Your task to perform on an android device: turn on location history Image 0: 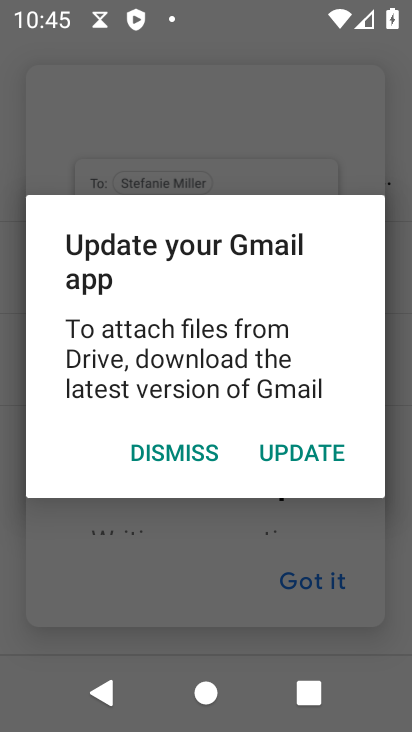
Step 0: press home button
Your task to perform on an android device: turn on location history Image 1: 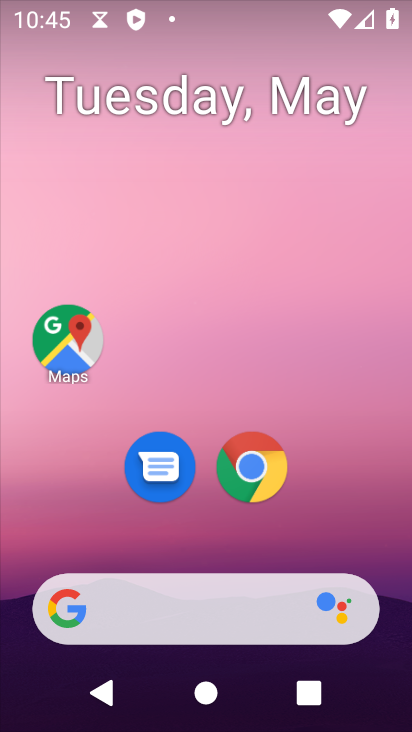
Step 1: drag from (393, 581) to (316, 156)
Your task to perform on an android device: turn on location history Image 2: 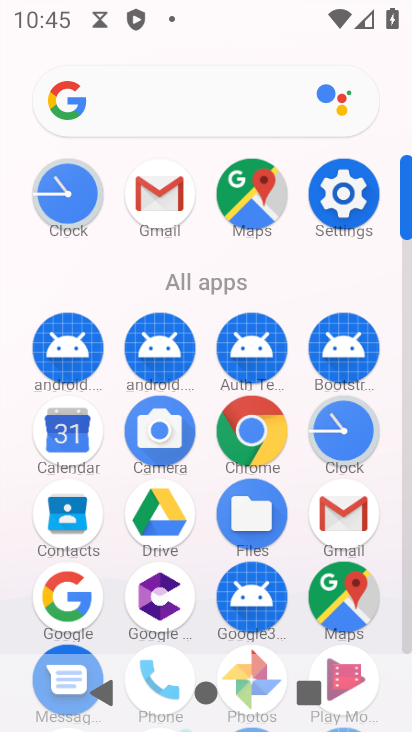
Step 2: click (270, 207)
Your task to perform on an android device: turn on location history Image 3: 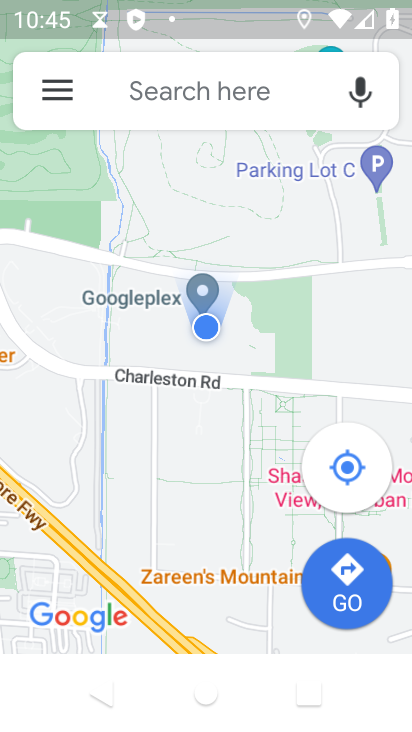
Step 3: click (62, 88)
Your task to perform on an android device: turn on location history Image 4: 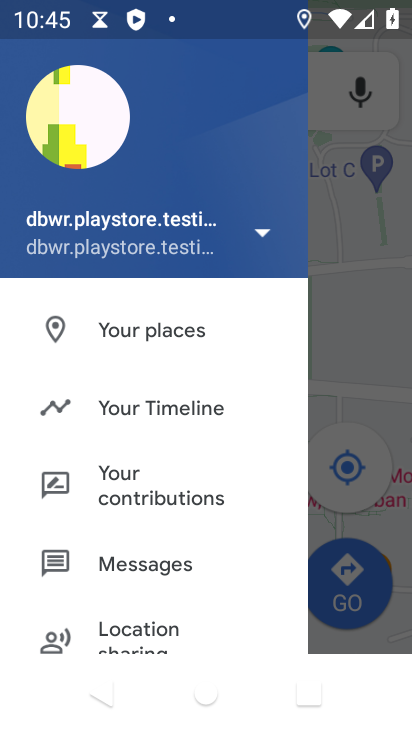
Step 4: click (194, 411)
Your task to perform on an android device: turn on location history Image 5: 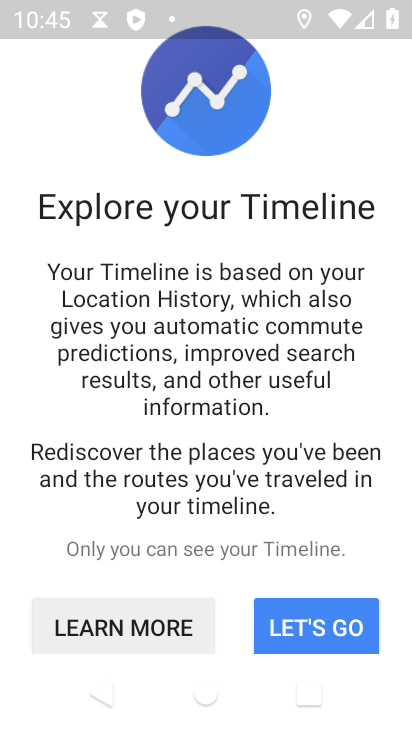
Step 5: click (315, 614)
Your task to perform on an android device: turn on location history Image 6: 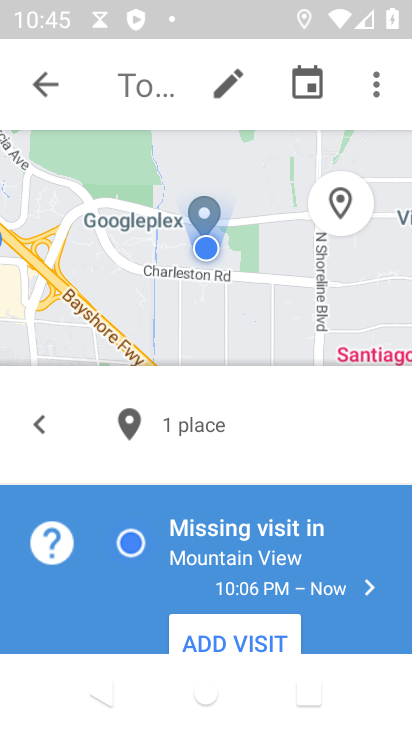
Step 6: click (382, 90)
Your task to perform on an android device: turn on location history Image 7: 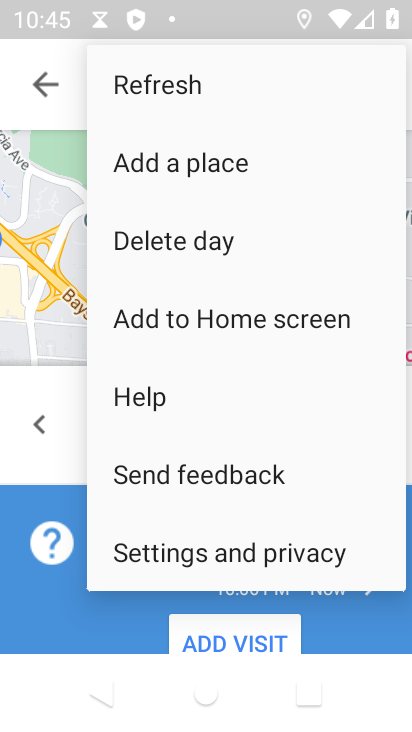
Step 7: click (251, 541)
Your task to perform on an android device: turn on location history Image 8: 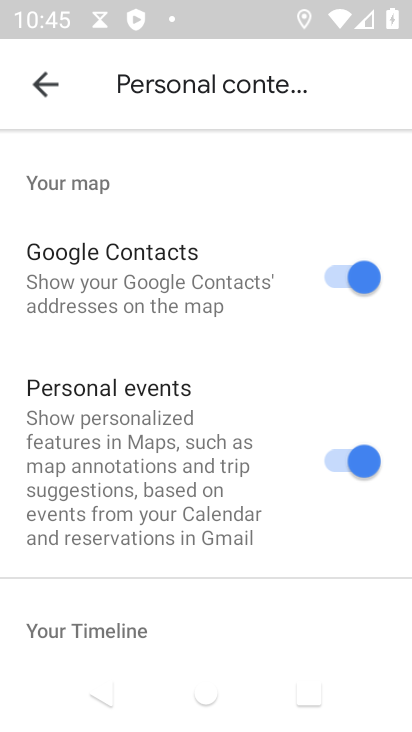
Step 8: drag from (261, 577) to (221, 98)
Your task to perform on an android device: turn on location history Image 9: 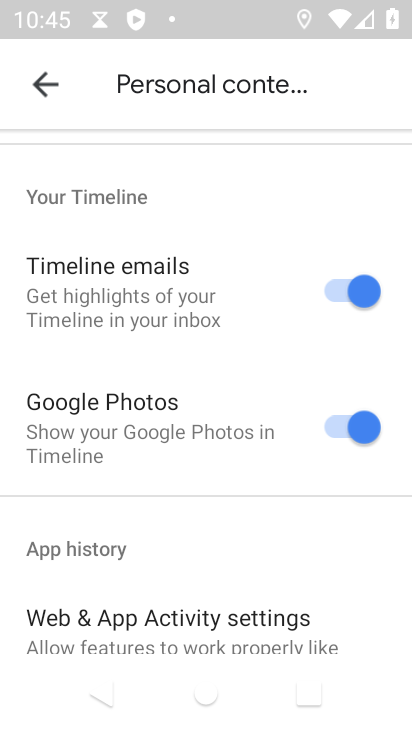
Step 9: drag from (222, 532) to (211, 138)
Your task to perform on an android device: turn on location history Image 10: 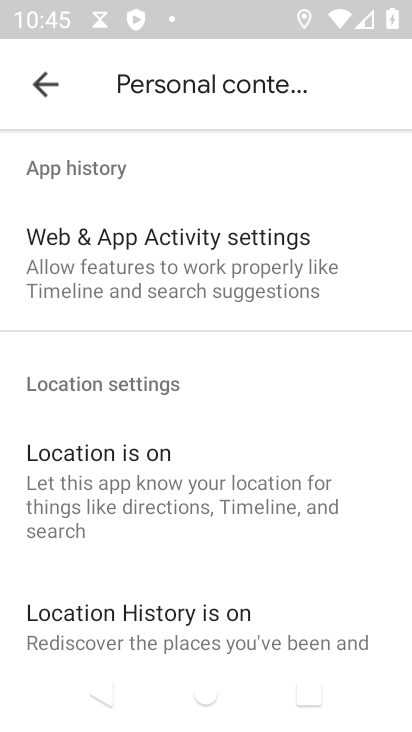
Step 10: click (181, 599)
Your task to perform on an android device: turn on location history Image 11: 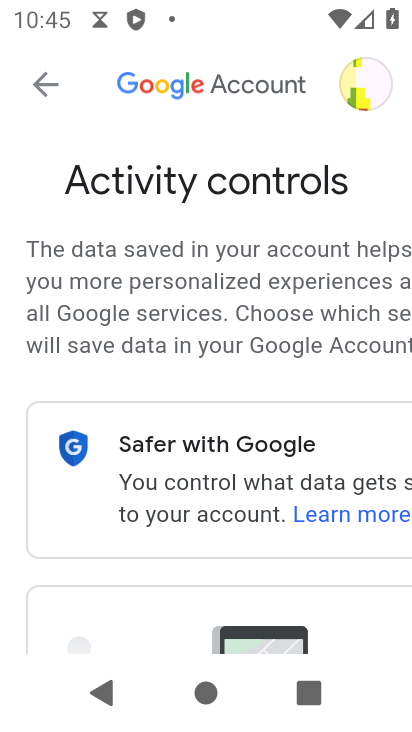
Step 11: drag from (225, 572) to (257, 98)
Your task to perform on an android device: turn on location history Image 12: 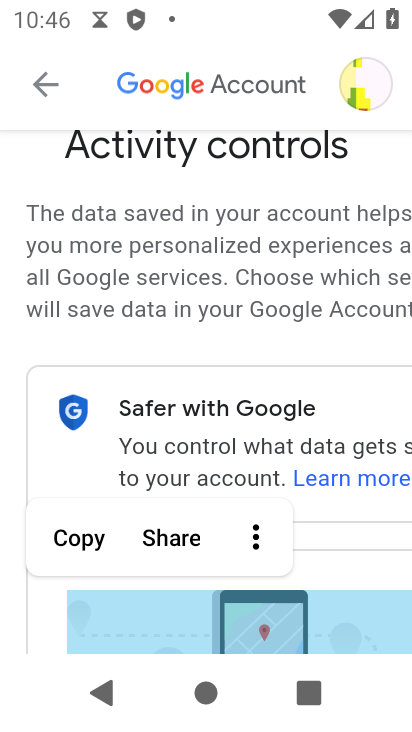
Step 12: click (318, 544)
Your task to perform on an android device: turn on location history Image 13: 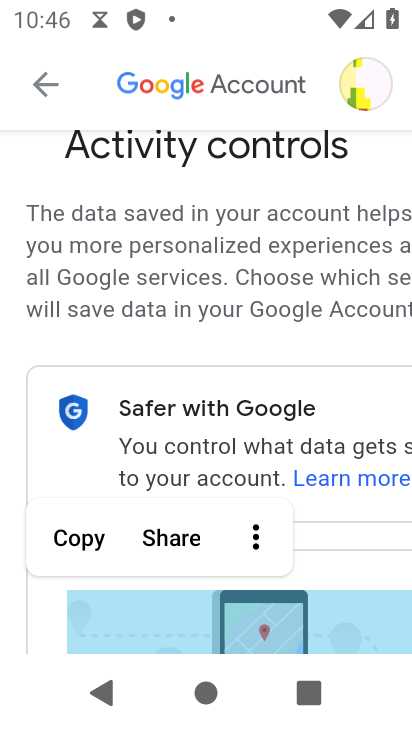
Step 13: click (314, 544)
Your task to perform on an android device: turn on location history Image 14: 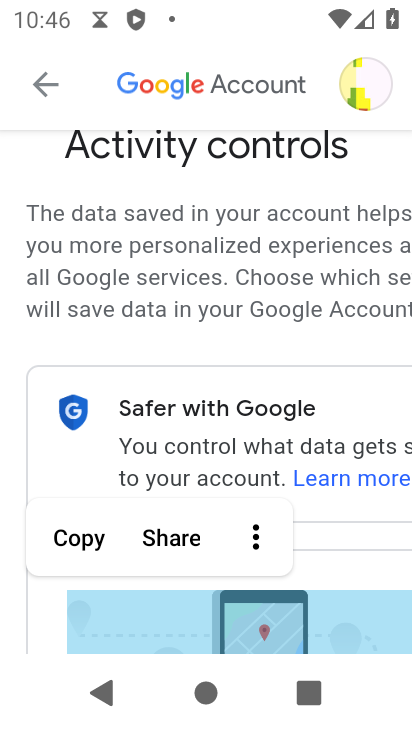
Step 14: drag from (314, 544) to (260, 168)
Your task to perform on an android device: turn on location history Image 15: 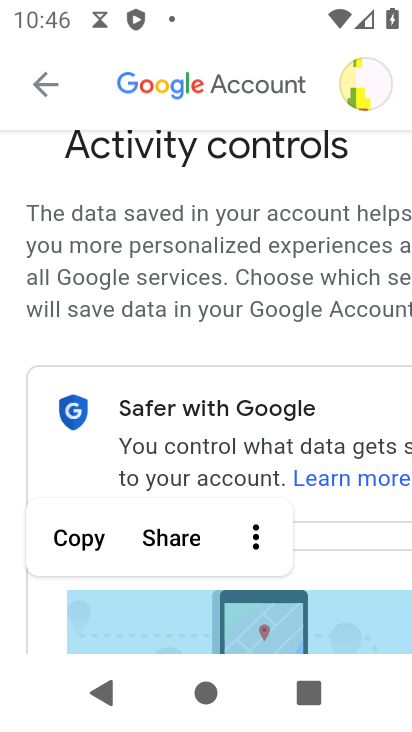
Step 15: drag from (363, 533) to (289, 164)
Your task to perform on an android device: turn on location history Image 16: 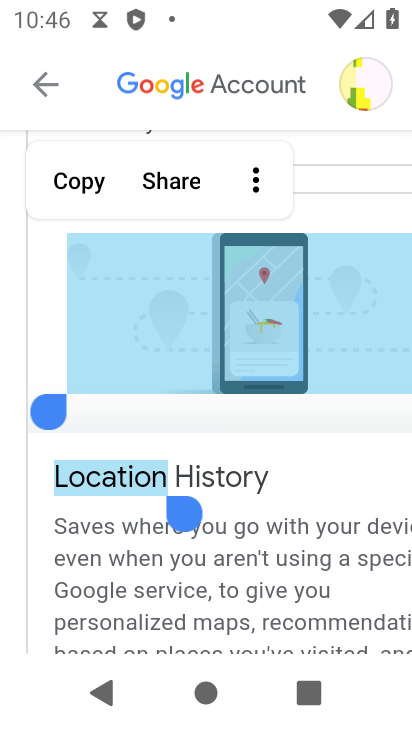
Step 16: click (305, 482)
Your task to perform on an android device: turn on location history Image 17: 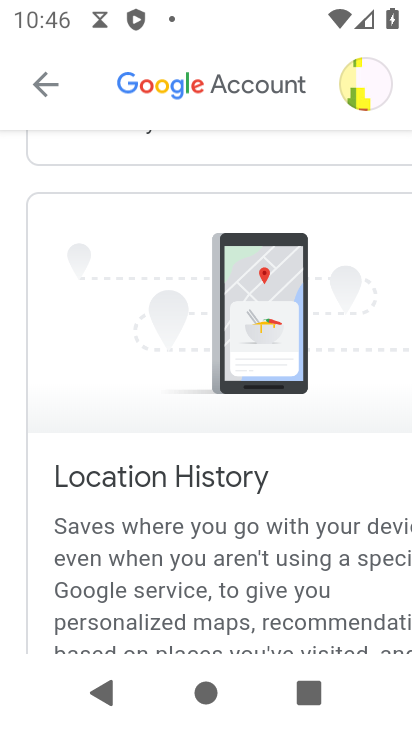
Step 17: task complete